Your task to perform on an android device: check storage Image 0: 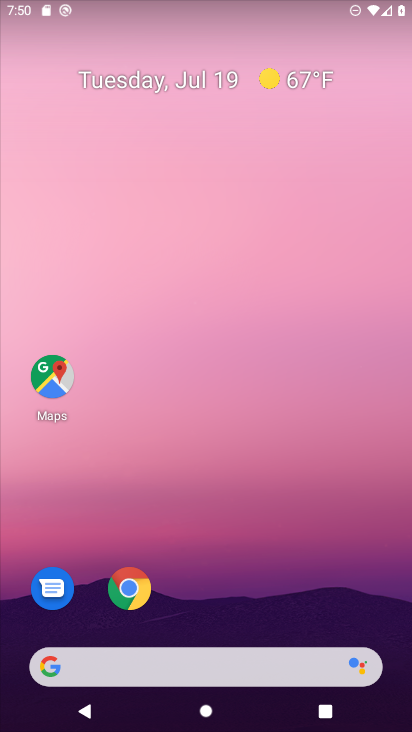
Step 0: drag from (327, 577) to (380, 99)
Your task to perform on an android device: check storage Image 1: 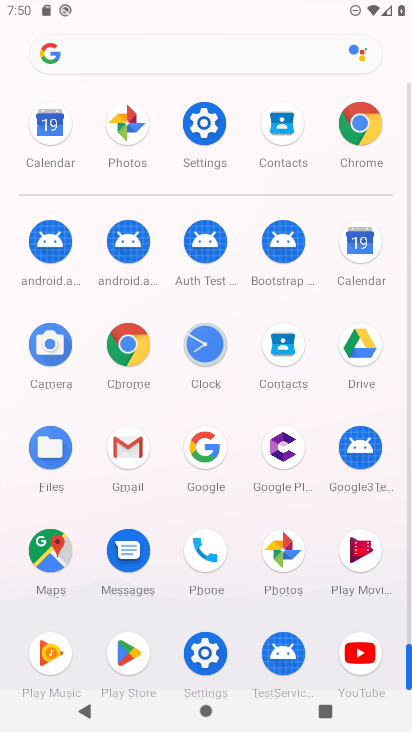
Step 1: click (203, 119)
Your task to perform on an android device: check storage Image 2: 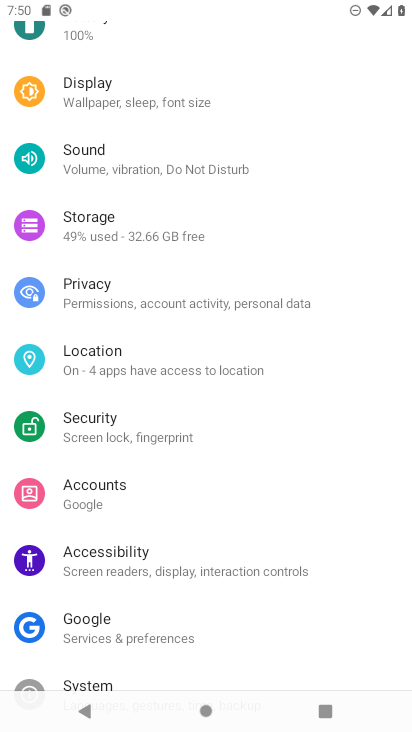
Step 2: drag from (319, 177) to (333, 257)
Your task to perform on an android device: check storage Image 3: 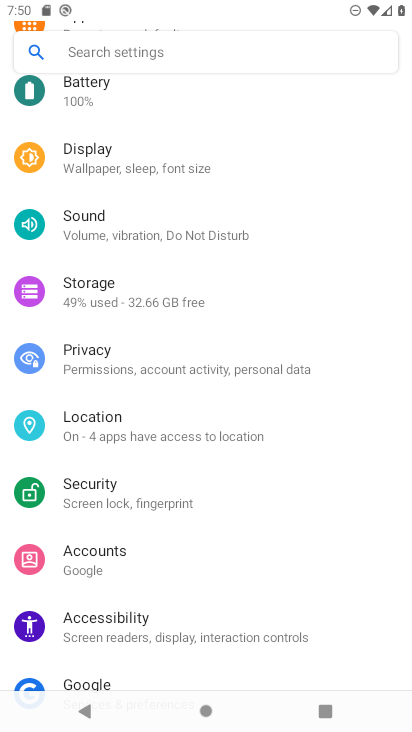
Step 3: drag from (342, 177) to (344, 284)
Your task to perform on an android device: check storage Image 4: 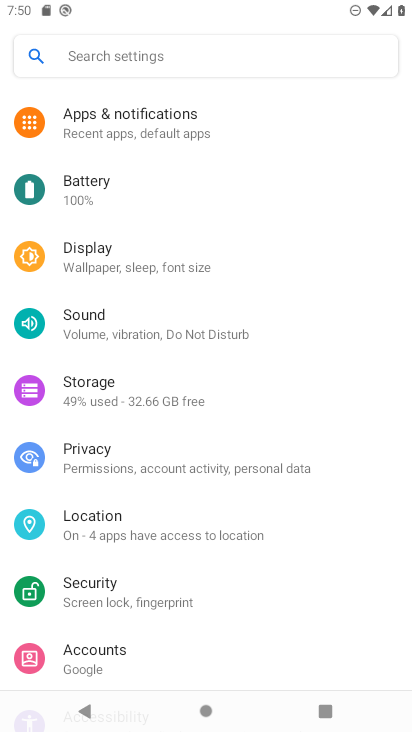
Step 4: drag from (338, 143) to (351, 275)
Your task to perform on an android device: check storage Image 5: 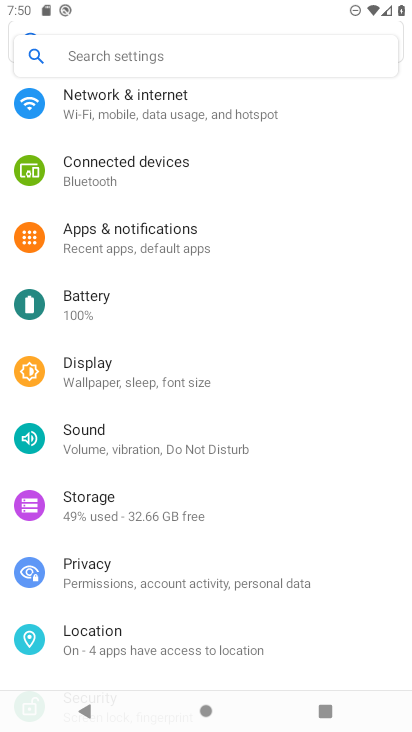
Step 5: drag from (347, 153) to (352, 284)
Your task to perform on an android device: check storage Image 6: 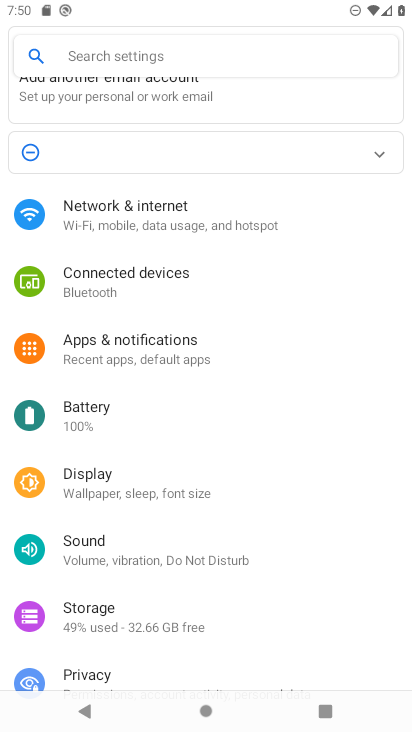
Step 6: drag from (324, 405) to (339, 352)
Your task to perform on an android device: check storage Image 7: 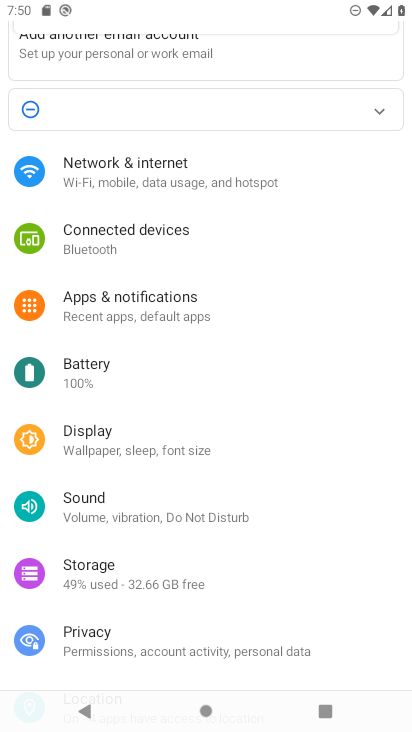
Step 7: drag from (331, 432) to (338, 332)
Your task to perform on an android device: check storage Image 8: 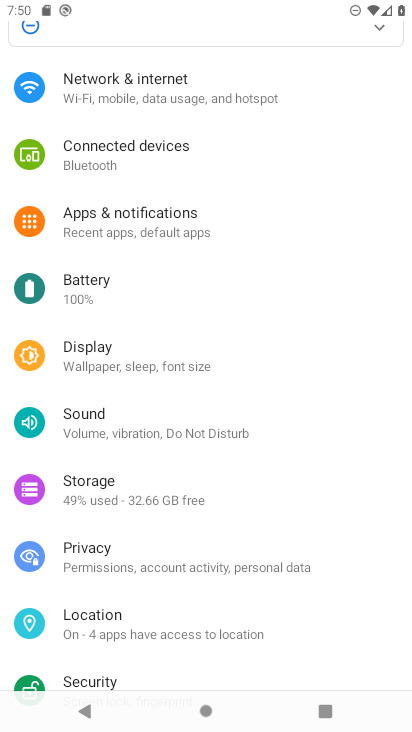
Step 8: drag from (338, 438) to (345, 322)
Your task to perform on an android device: check storage Image 9: 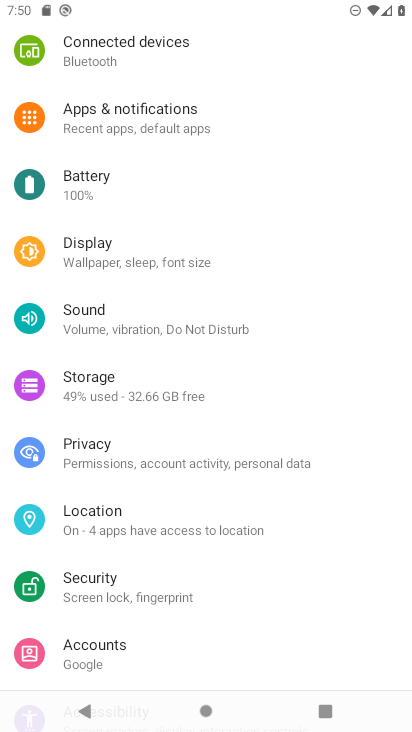
Step 9: click (302, 399)
Your task to perform on an android device: check storage Image 10: 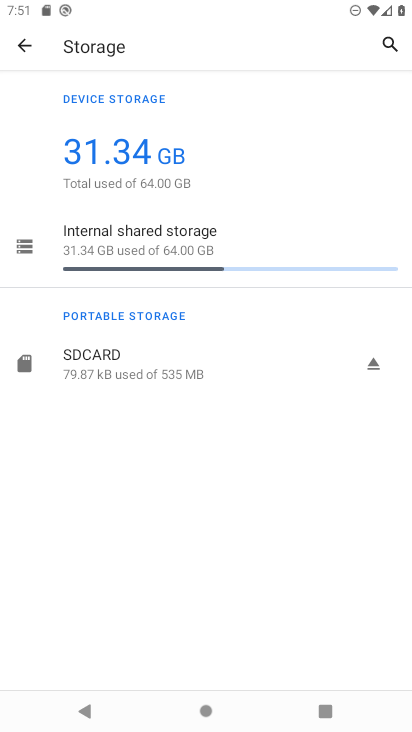
Step 10: task complete